Your task to perform on an android device: Search for flights from Buenos aires to Tokyo Image 0: 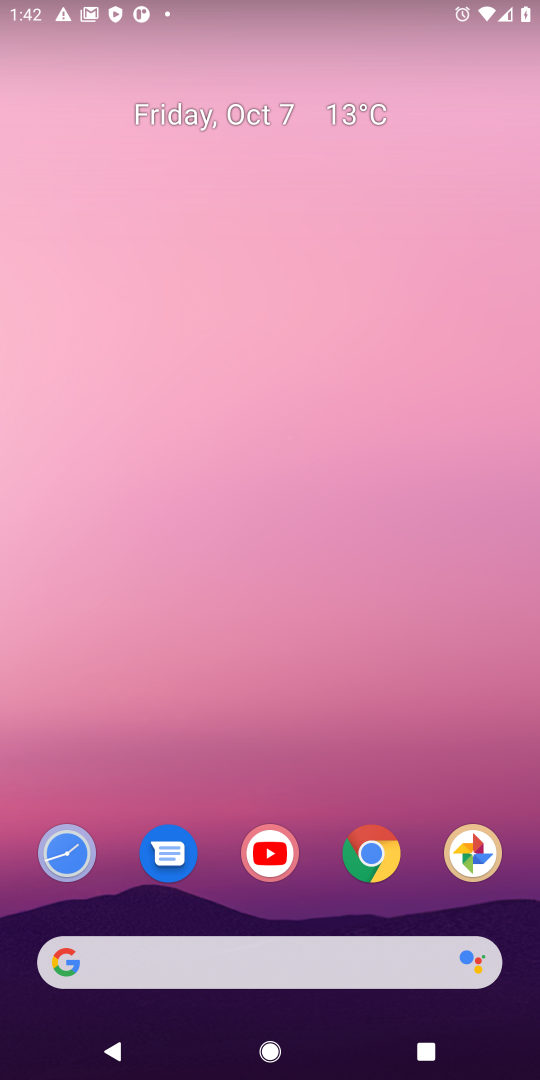
Step 0: click (296, 938)
Your task to perform on an android device: Search for flights from Buenos aires to Tokyo Image 1: 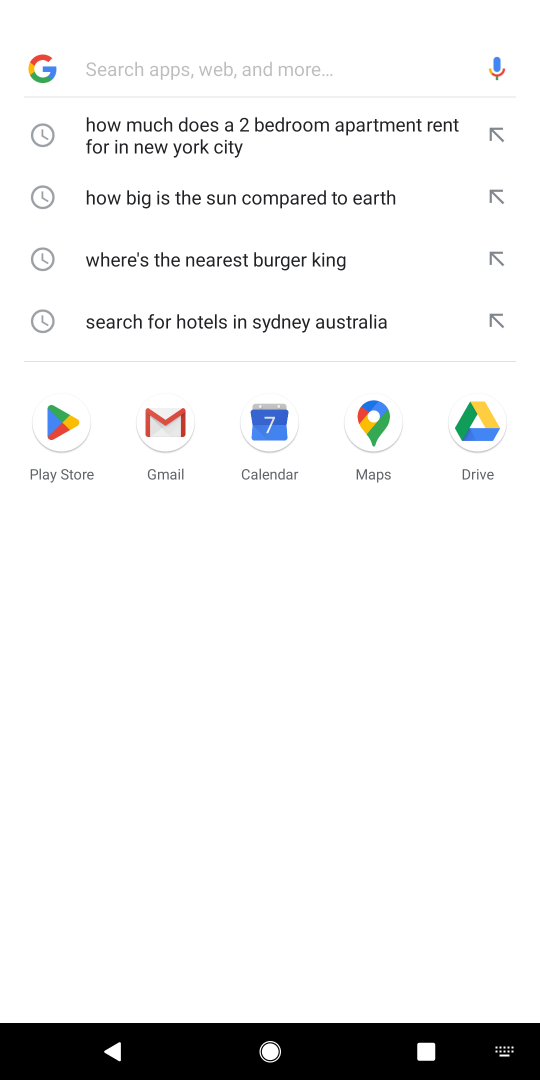
Step 1: type "Search for flights from Buenos aires to Tokyo"
Your task to perform on an android device: Search for flights from Buenos aires to Tokyo Image 2: 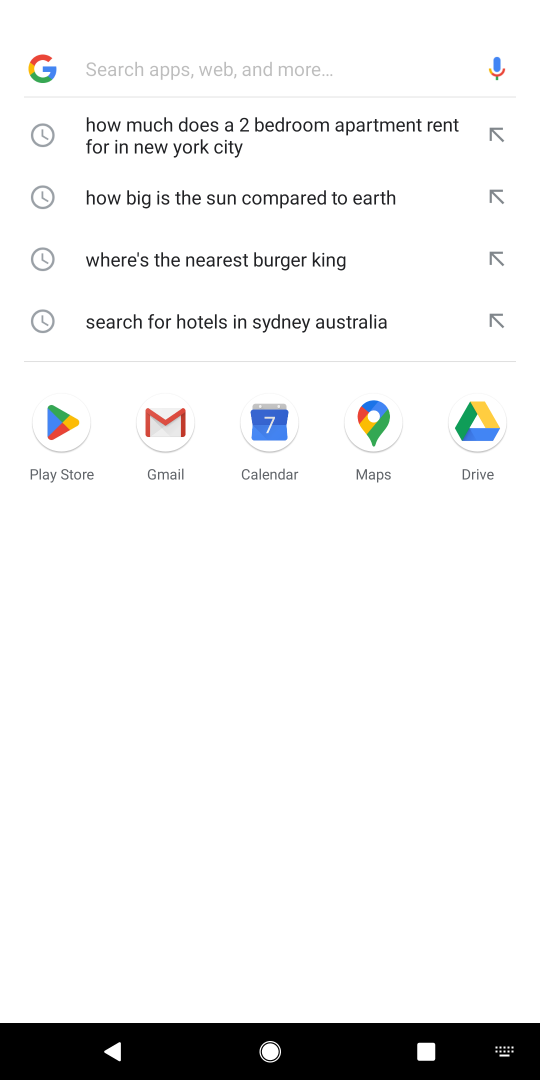
Step 2: click (376, 73)
Your task to perform on an android device: Search for flights from Buenos aires to Tokyo Image 3: 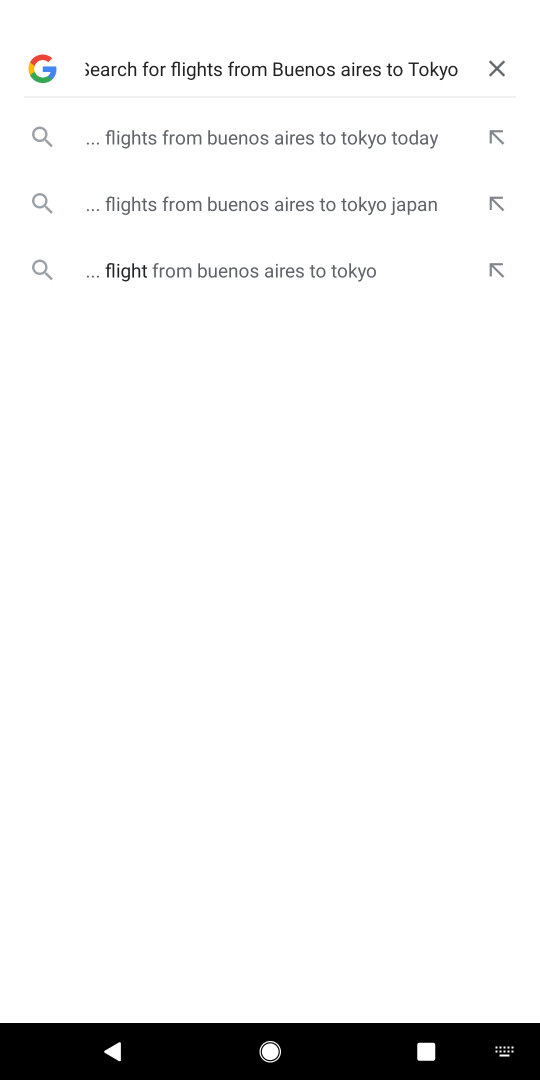
Step 3: click (180, 63)
Your task to perform on an android device: Search for flights from Buenos aires to Tokyo Image 4: 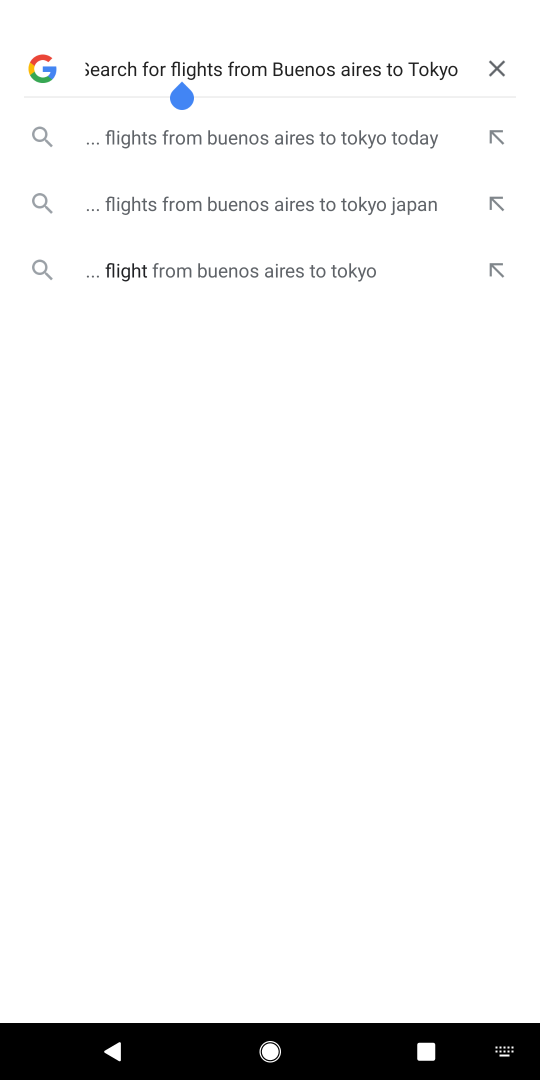
Step 4: click (258, 124)
Your task to perform on an android device: Search for flights from Buenos aires to Tokyo Image 5: 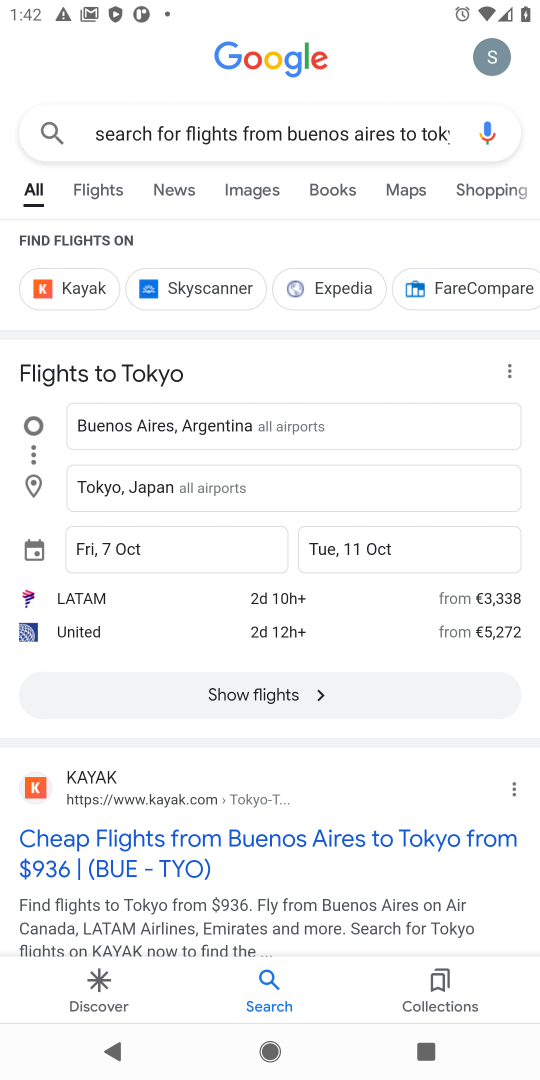
Step 5: task complete